Your task to perform on an android device: change notification settings in the gmail app Image 0: 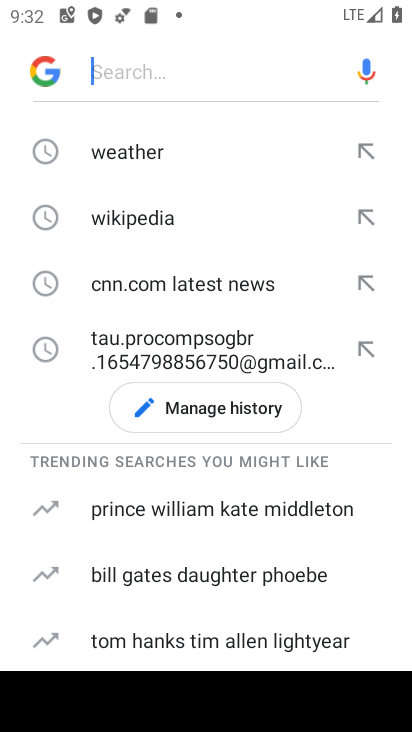
Step 0: press home button
Your task to perform on an android device: change notification settings in the gmail app Image 1: 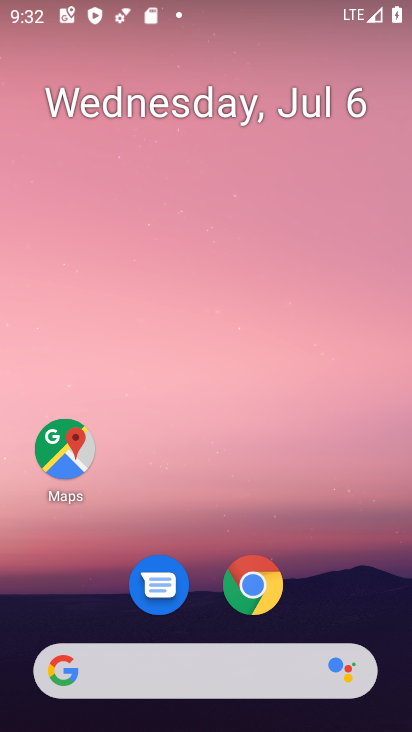
Step 1: drag from (249, 498) to (264, 0)
Your task to perform on an android device: change notification settings in the gmail app Image 2: 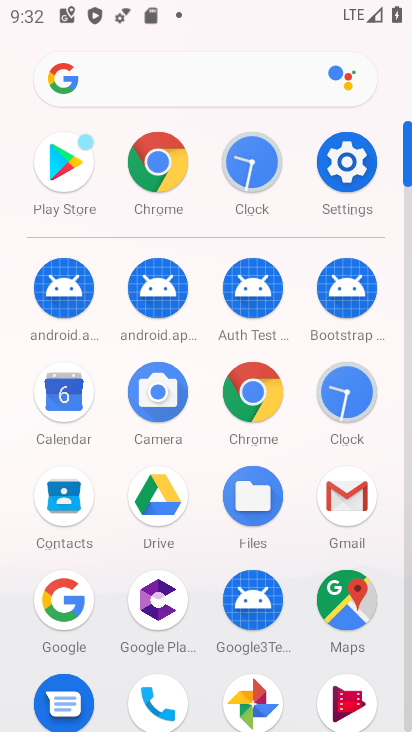
Step 2: click (346, 488)
Your task to perform on an android device: change notification settings in the gmail app Image 3: 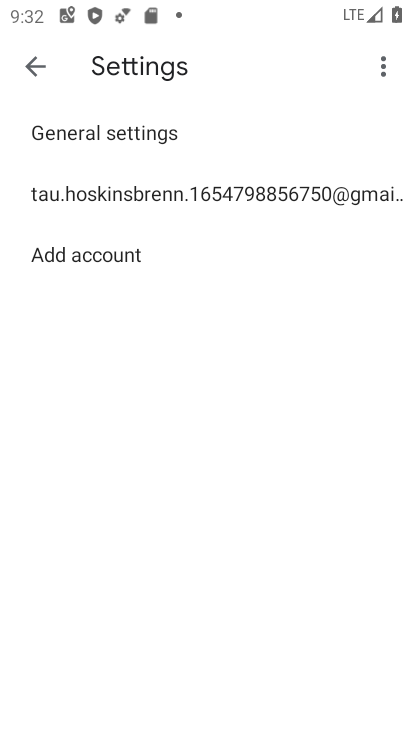
Step 3: click (146, 189)
Your task to perform on an android device: change notification settings in the gmail app Image 4: 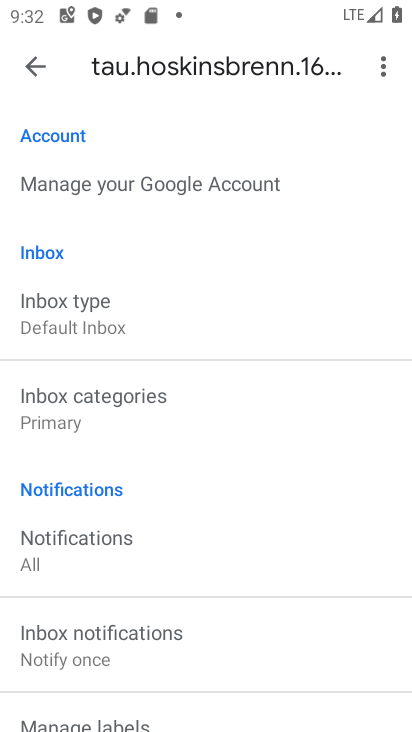
Step 4: click (100, 539)
Your task to perform on an android device: change notification settings in the gmail app Image 5: 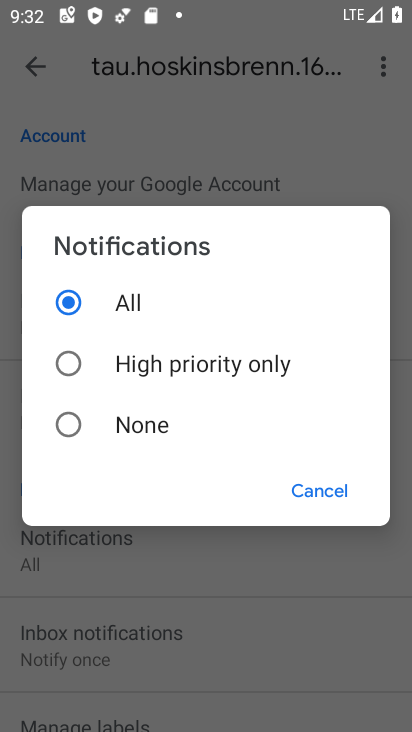
Step 5: click (69, 415)
Your task to perform on an android device: change notification settings in the gmail app Image 6: 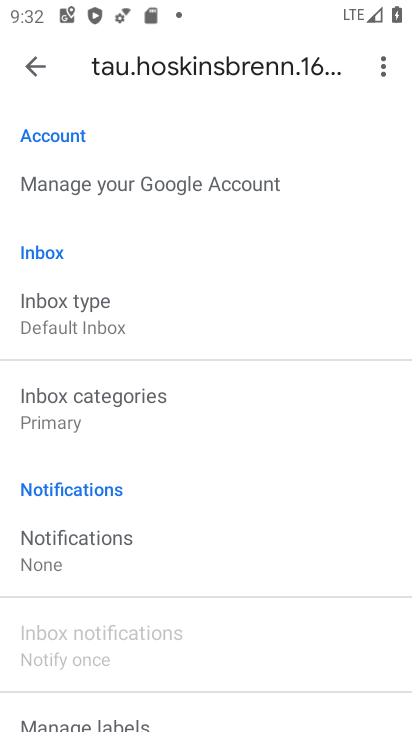
Step 6: task complete